Your task to perform on an android device: allow notifications from all sites in the chrome app Image 0: 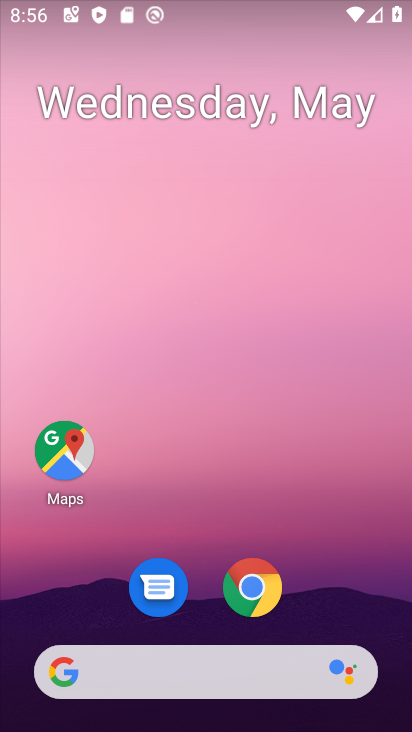
Step 0: click (253, 586)
Your task to perform on an android device: allow notifications from all sites in the chrome app Image 1: 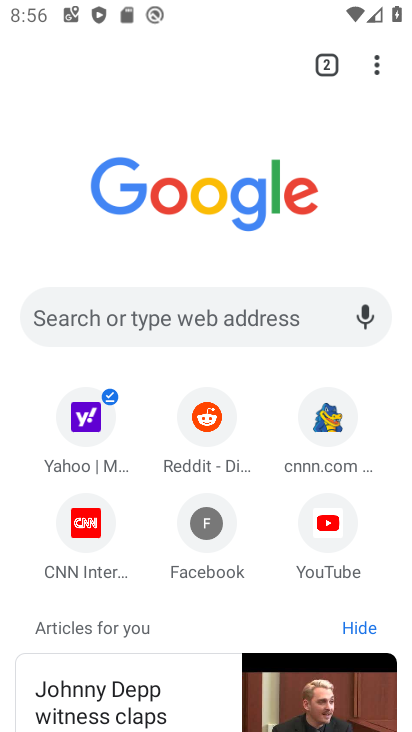
Step 1: click (377, 72)
Your task to perform on an android device: allow notifications from all sites in the chrome app Image 2: 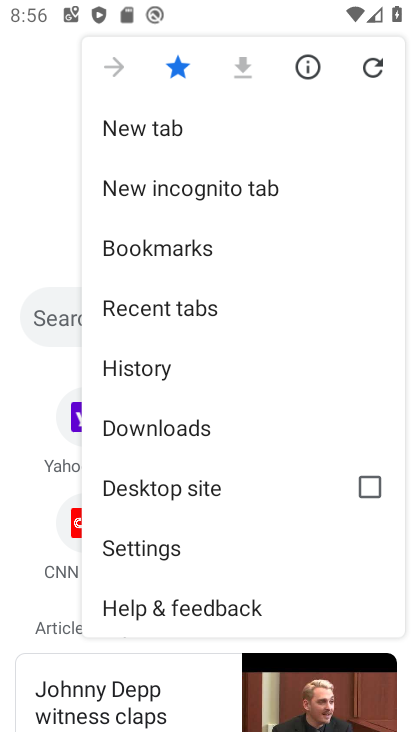
Step 2: click (171, 540)
Your task to perform on an android device: allow notifications from all sites in the chrome app Image 3: 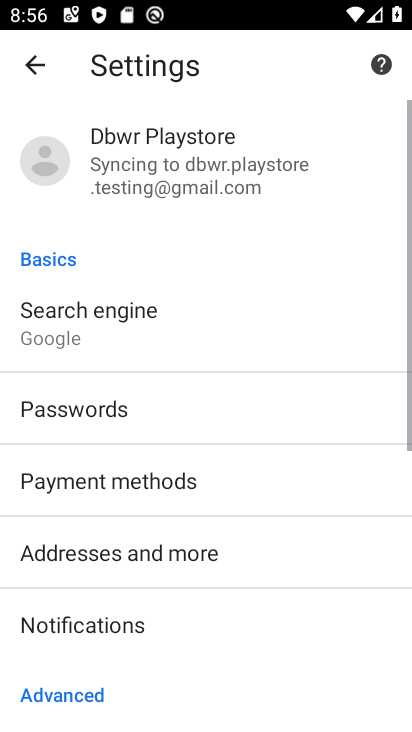
Step 3: drag from (251, 610) to (246, 263)
Your task to perform on an android device: allow notifications from all sites in the chrome app Image 4: 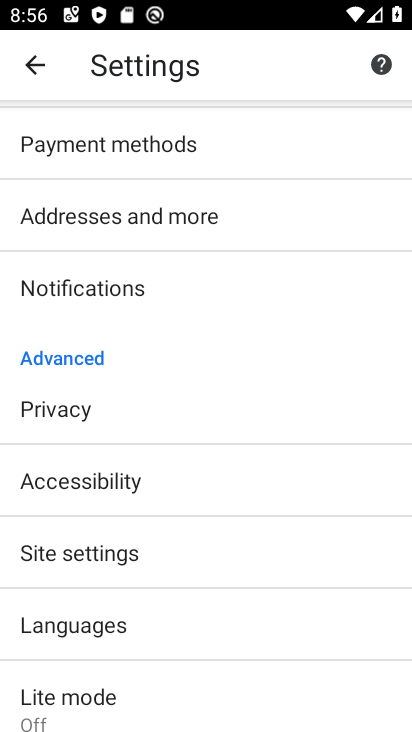
Step 4: click (72, 560)
Your task to perform on an android device: allow notifications from all sites in the chrome app Image 5: 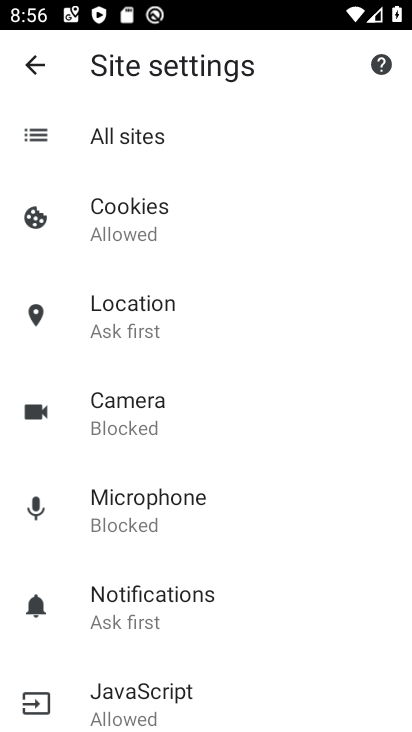
Step 5: click (162, 612)
Your task to perform on an android device: allow notifications from all sites in the chrome app Image 6: 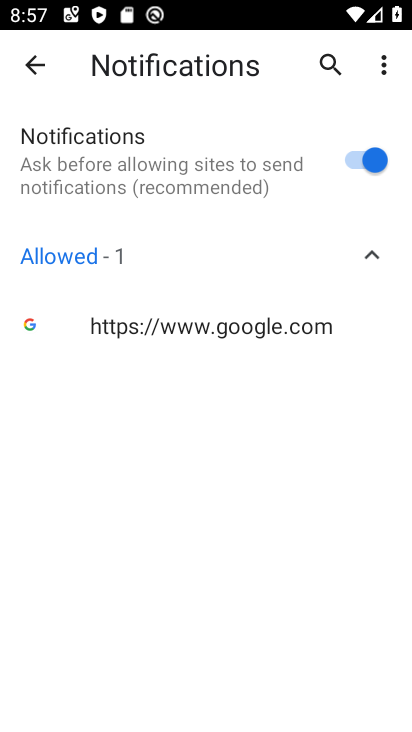
Step 6: task complete